Your task to perform on an android device: install app "NewsBreak: Local News & Alerts" Image 0: 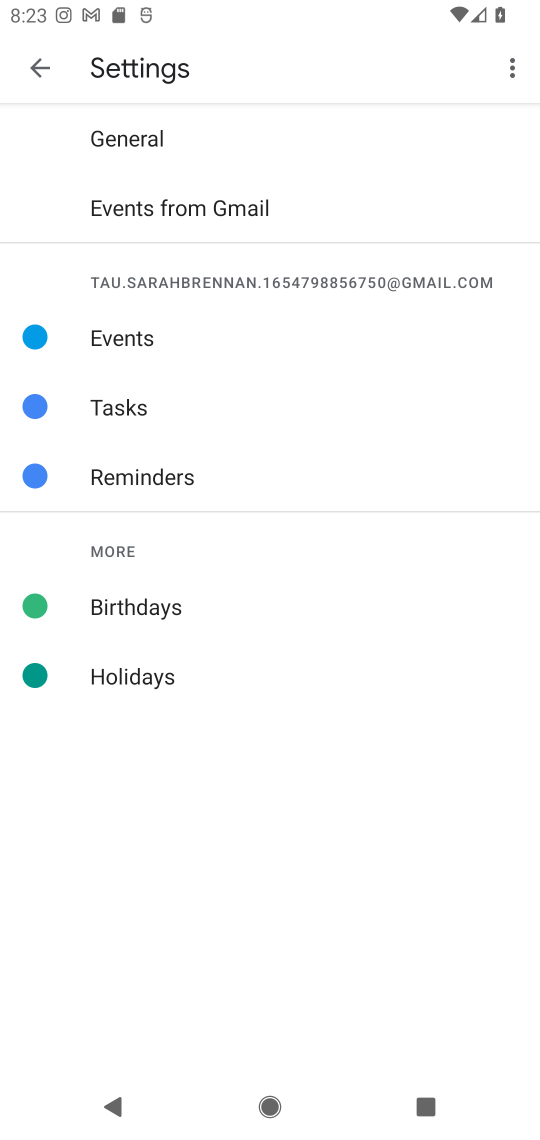
Step 0: press home button
Your task to perform on an android device: install app "NewsBreak: Local News & Alerts" Image 1: 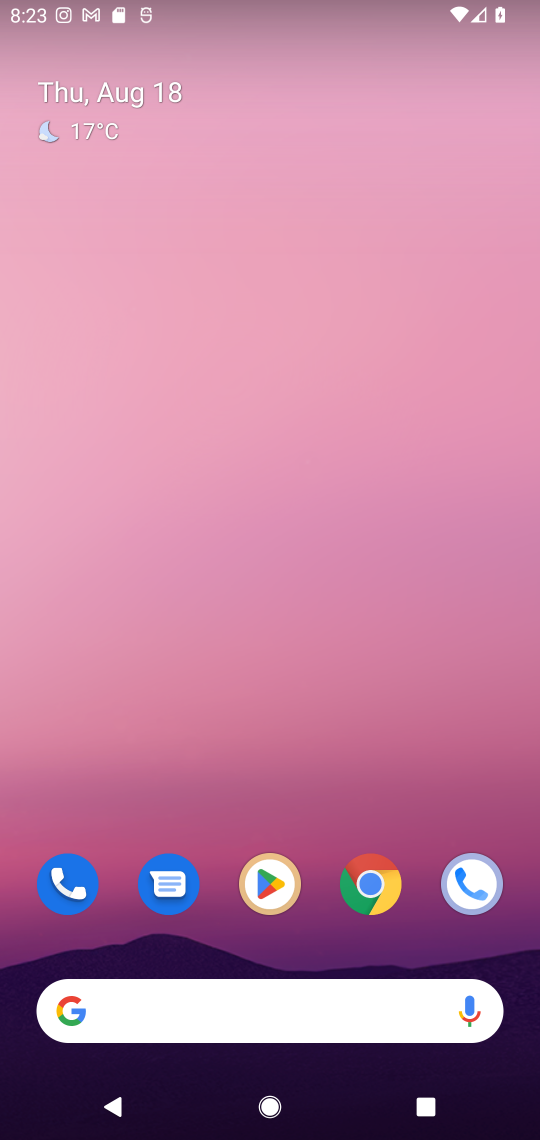
Step 1: drag from (271, 1025) to (213, 145)
Your task to perform on an android device: install app "NewsBreak: Local News & Alerts" Image 2: 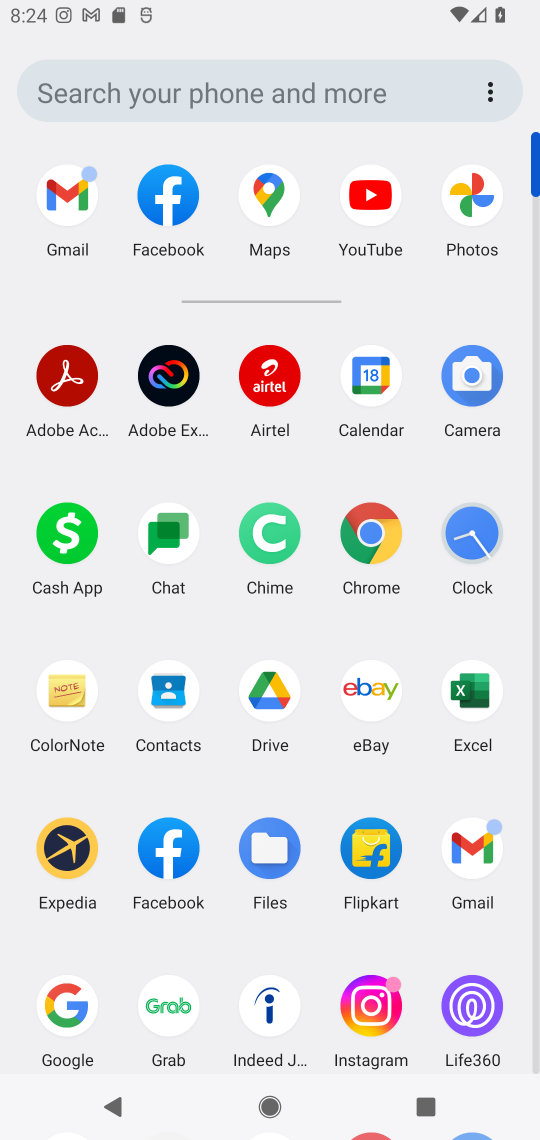
Step 2: drag from (217, 793) to (215, 267)
Your task to perform on an android device: install app "NewsBreak: Local News & Alerts" Image 3: 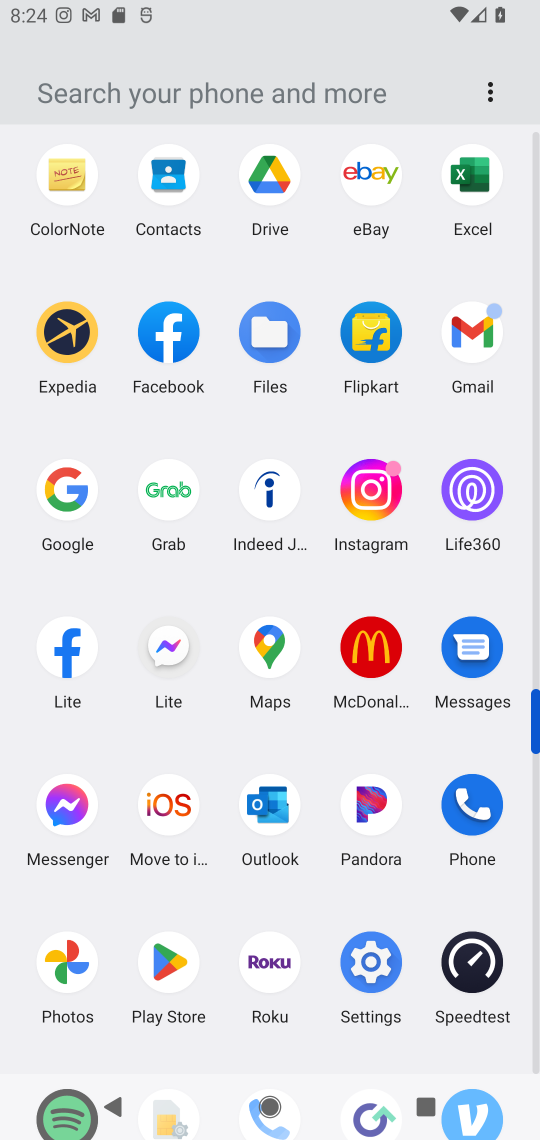
Step 3: click (171, 968)
Your task to perform on an android device: install app "NewsBreak: Local News & Alerts" Image 4: 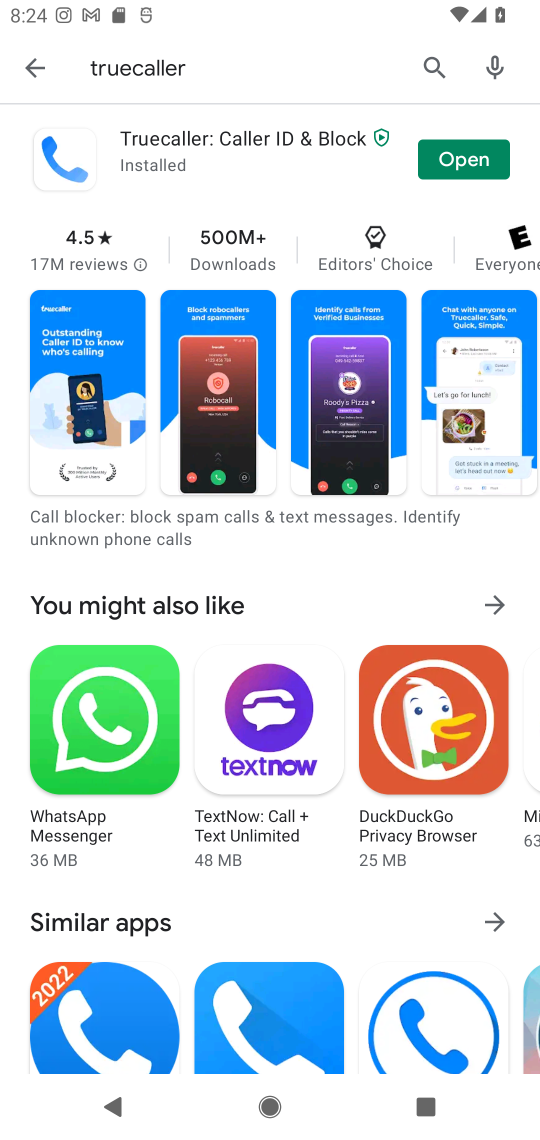
Step 4: press back button
Your task to perform on an android device: install app "NewsBreak: Local News & Alerts" Image 5: 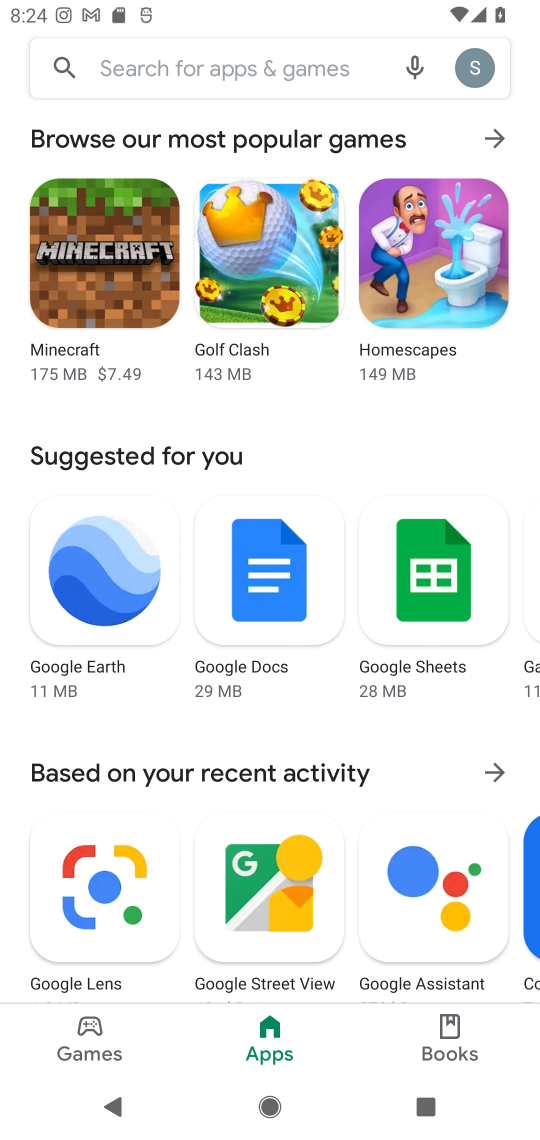
Step 5: click (301, 69)
Your task to perform on an android device: install app "NewsBreak: Local News & Alerts" Image 6: 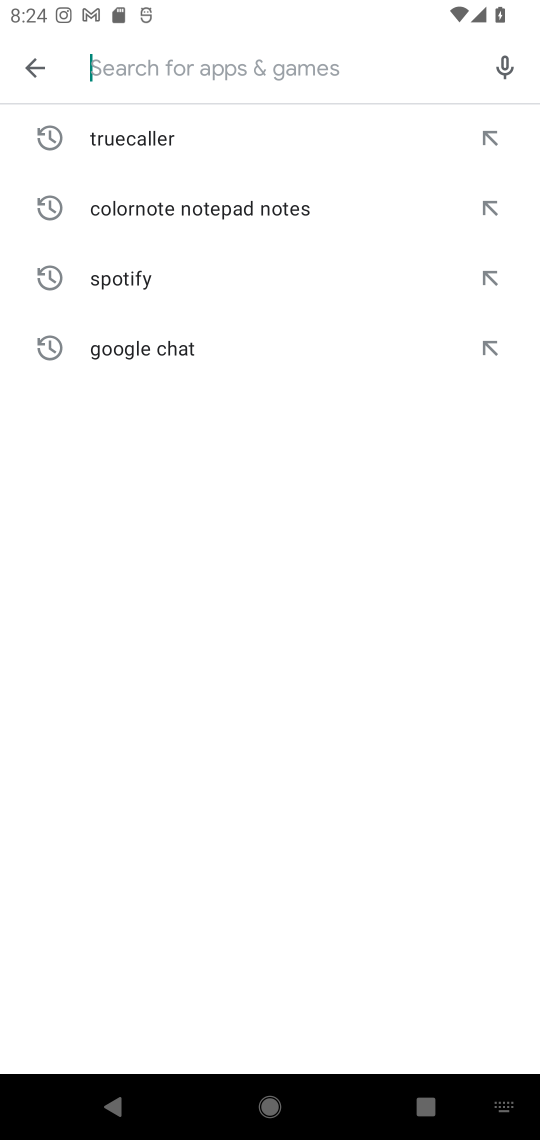
Step 6: type "NewsBreak: Local News & Alerts"
Your task to perform on an android device: install app "NewsBreak: Local News & Alerts" Image 7: 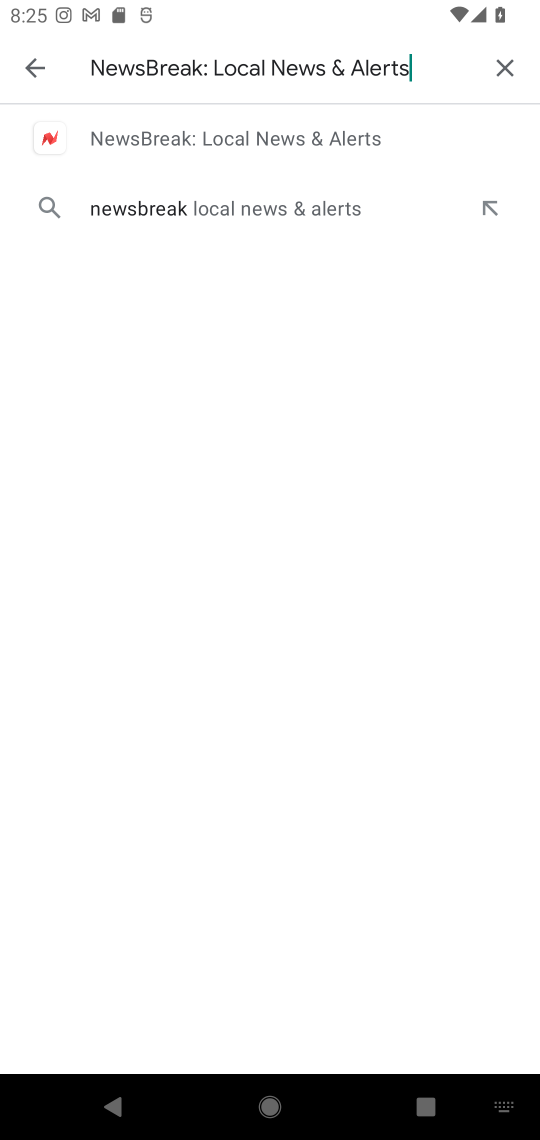
Step 7: click (360, 138)
Your task to perform on an android device: install app "NewsBreak: Local News & Alerts" Image 8: 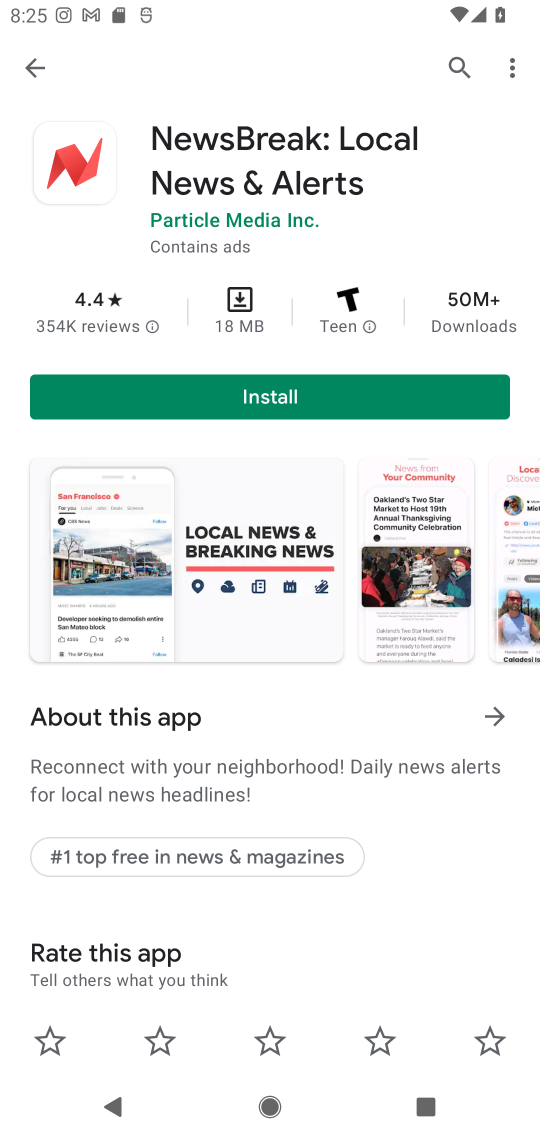
Step 8: click (278, 403)
Your task to perform on an android device: install app "NewsBreak: Local News & Alerts" Image 9: 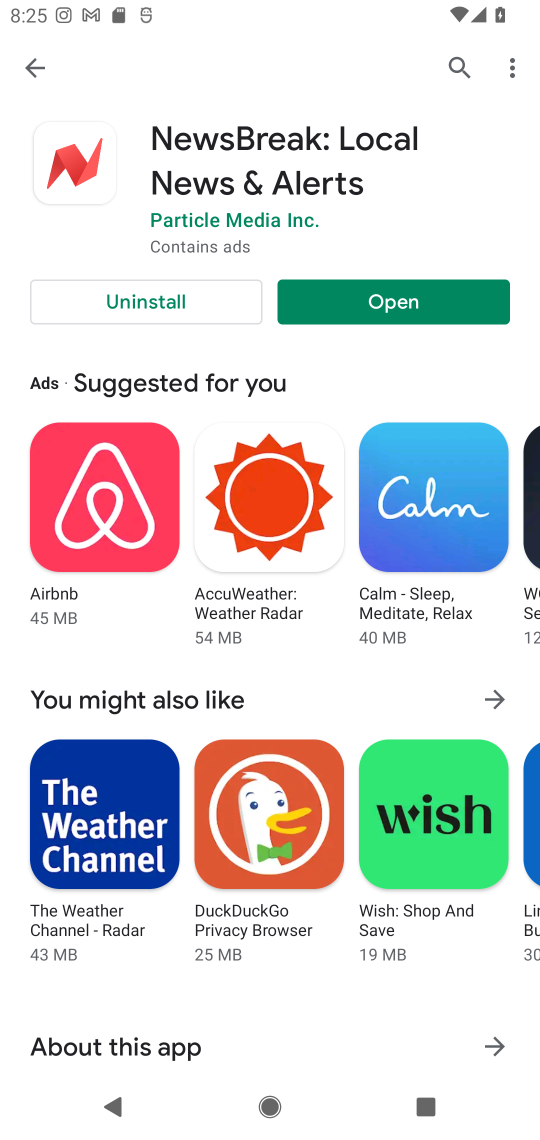
Step 9: task complete